Your task to perform on an android device: change alarm snooze length Image 0: 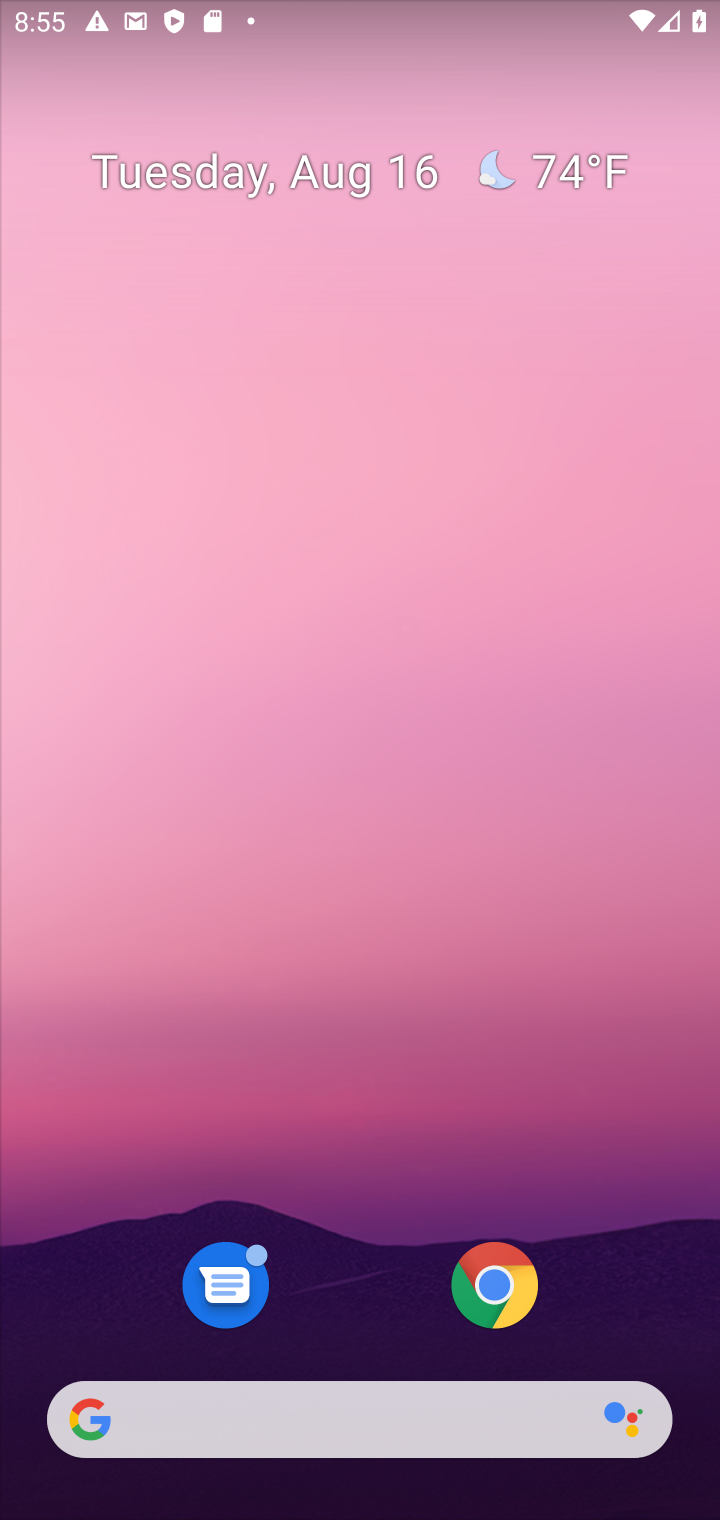
Step 0: drag from (405, 1315) to (358, 176)
Your task to perform on an android device: change alarm snooze length Image 1: 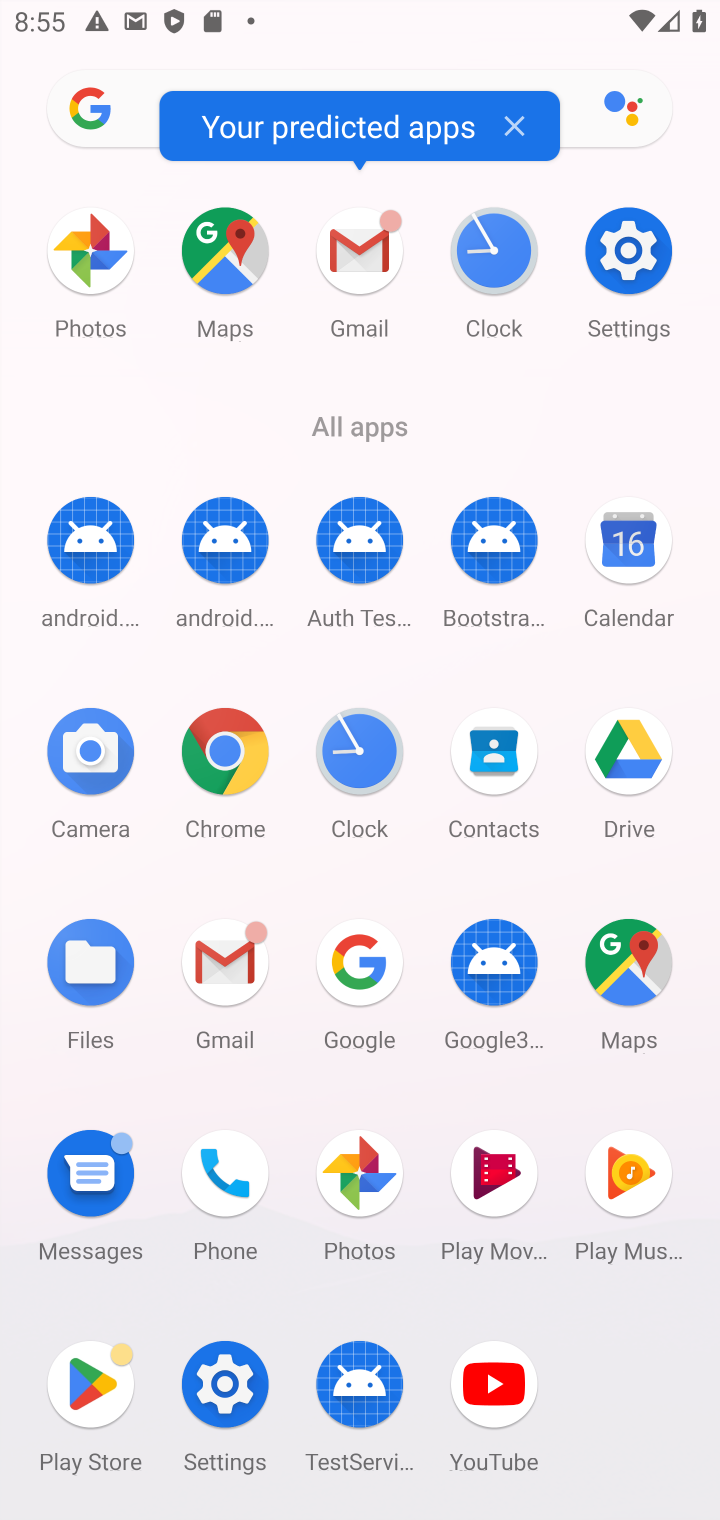
Step 1: click (365, 752)
Your task to perform on an android device: change alarm snooze length Image 2: 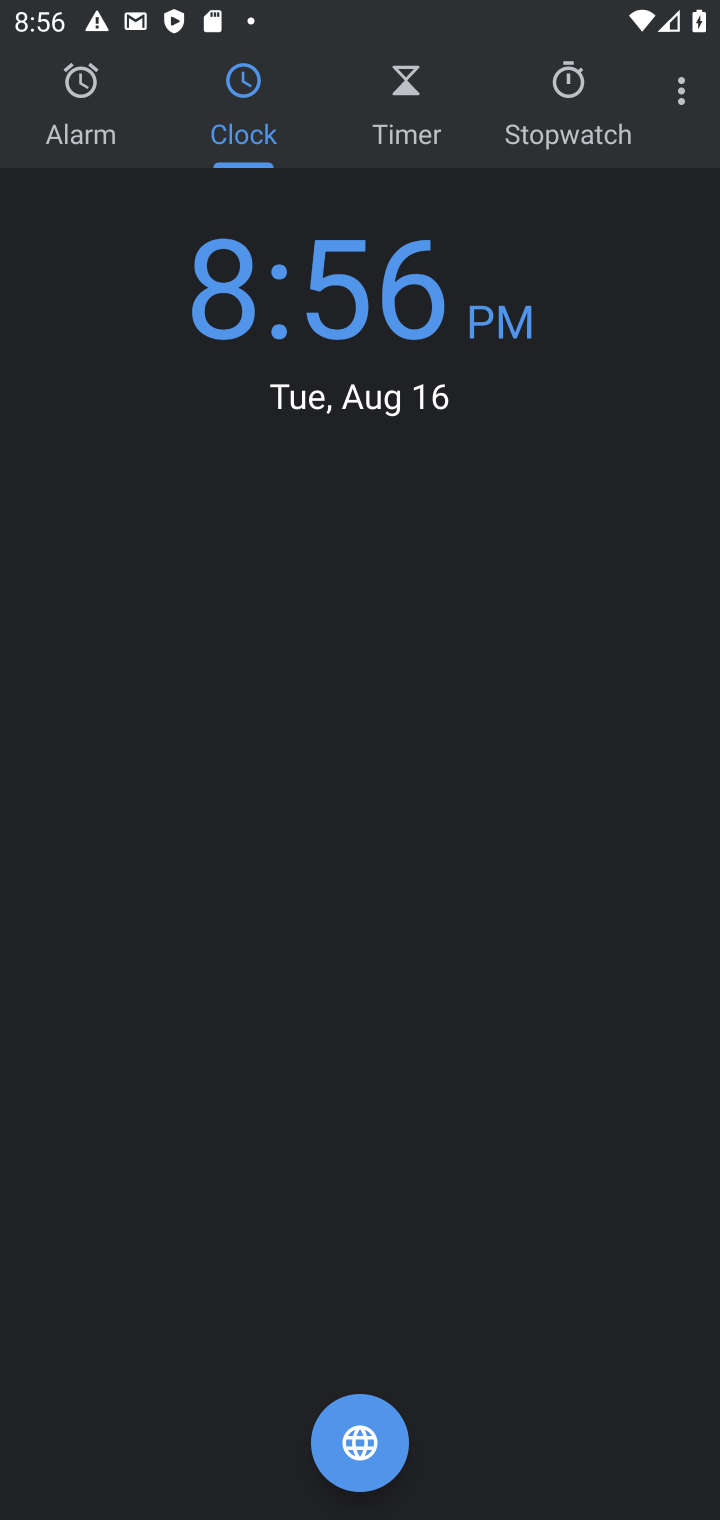
Step 2: click (683, 106)
Your task to perform on an android device: change alarm snooze length Image 3: 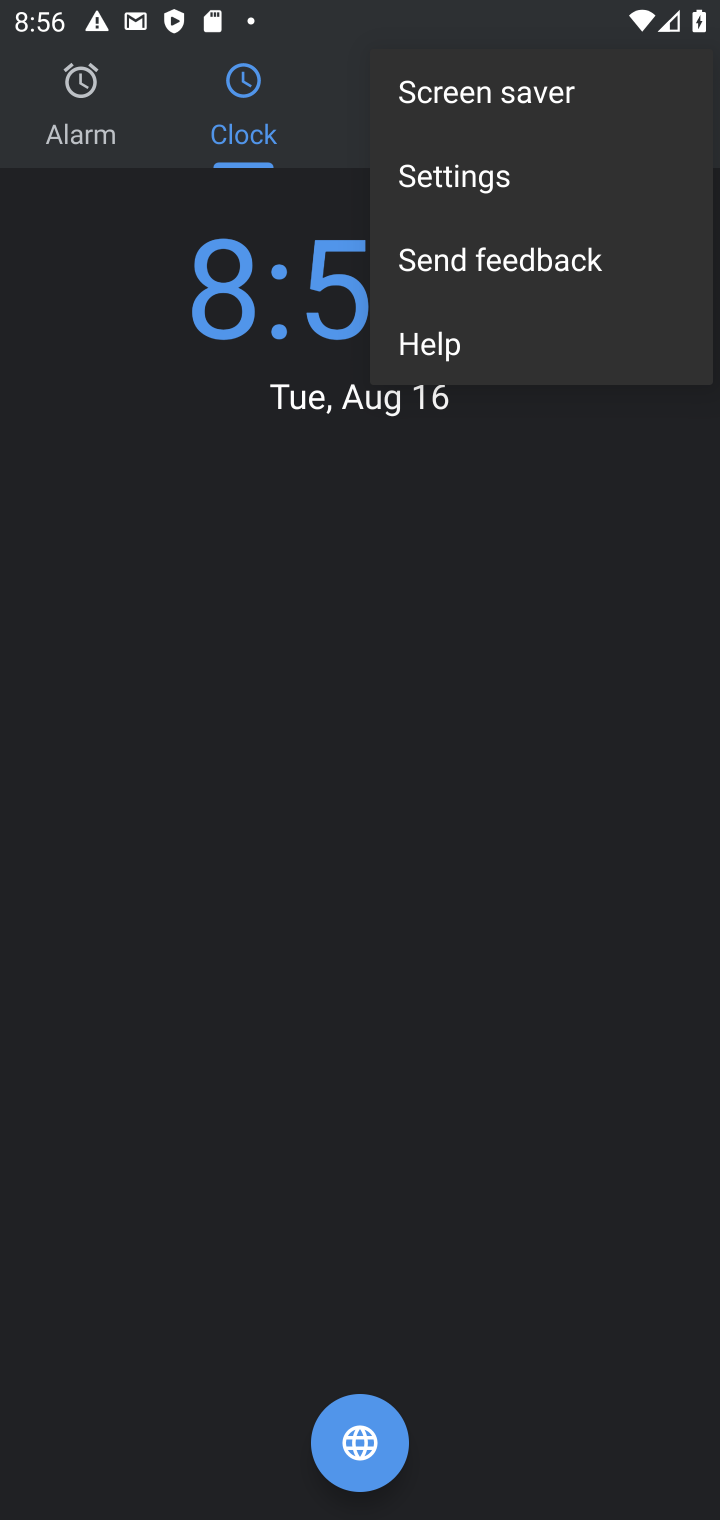
Step 3: click (478, 173)
Your task to perform on an android device: change alarm snooze length Image 4: 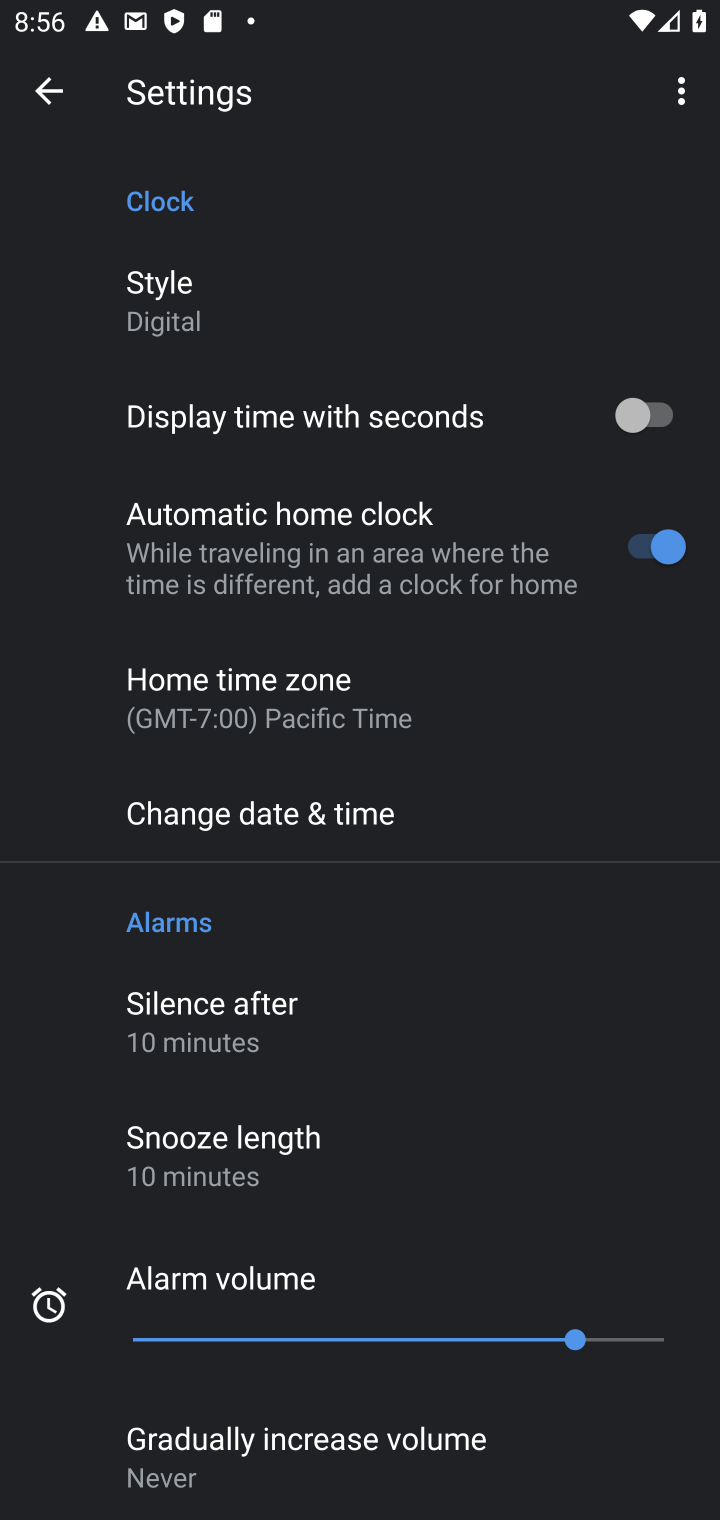
Step 4: click (315, 1130)
Your task to perform on an android device: change alarm snooze length Image 5: 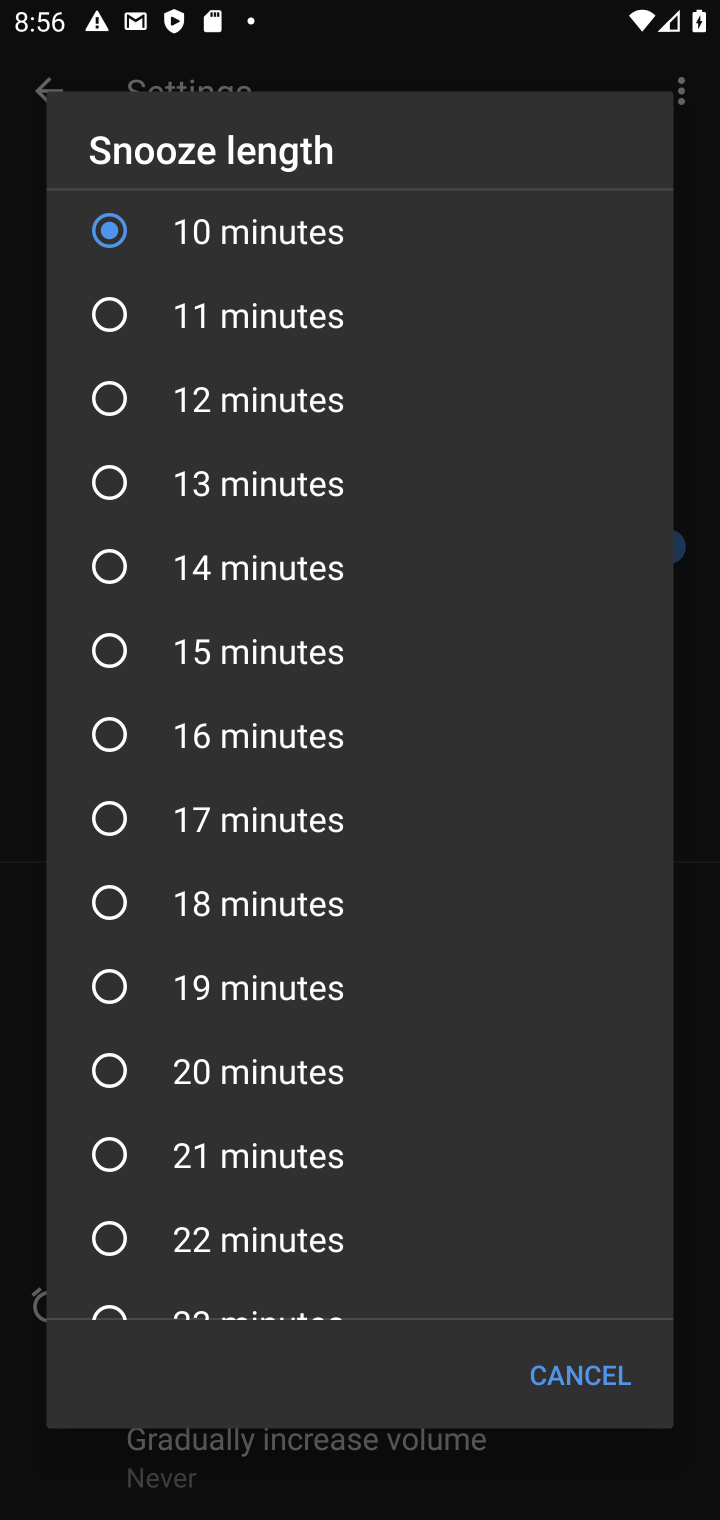
Step 5: click (102, 296)
Your task to perform on an android device: change alarm snooze length Image 6: 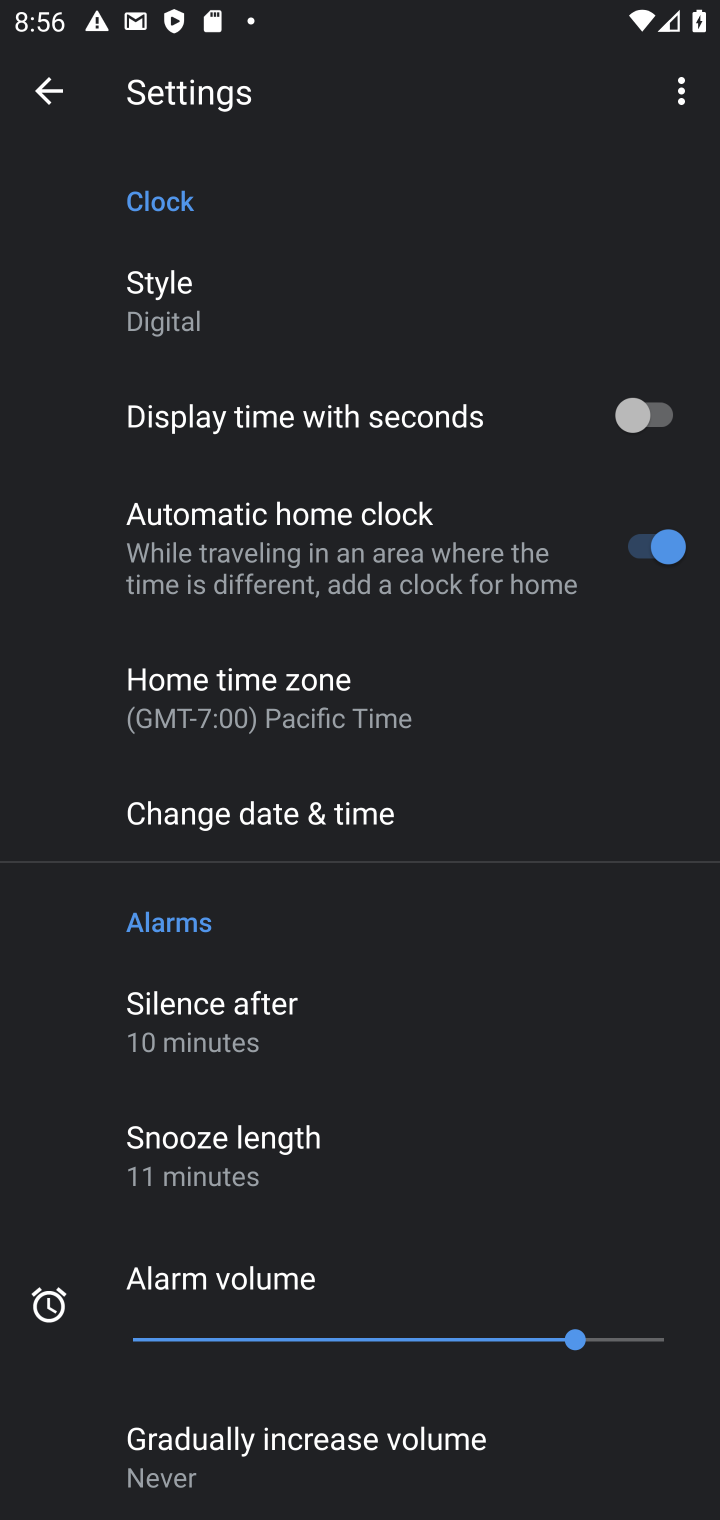
Step 6: task complete